Your task to perform on an android device: turn pop-ups off in chrome Image 0: 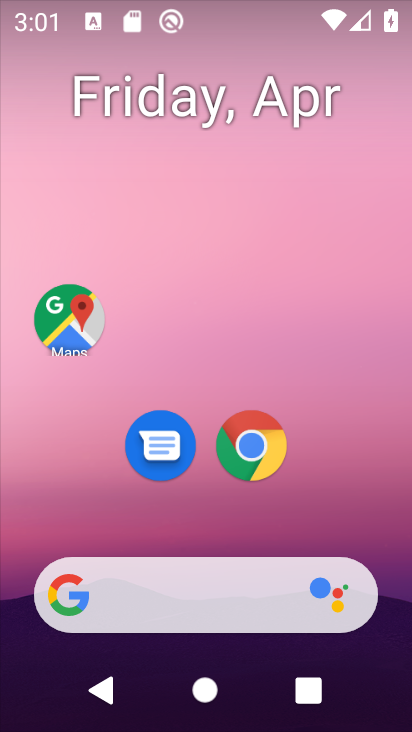
Step 0: click (319, 206)
Your task to perform on an android device: turn pop-ups off in chrome Image 1: 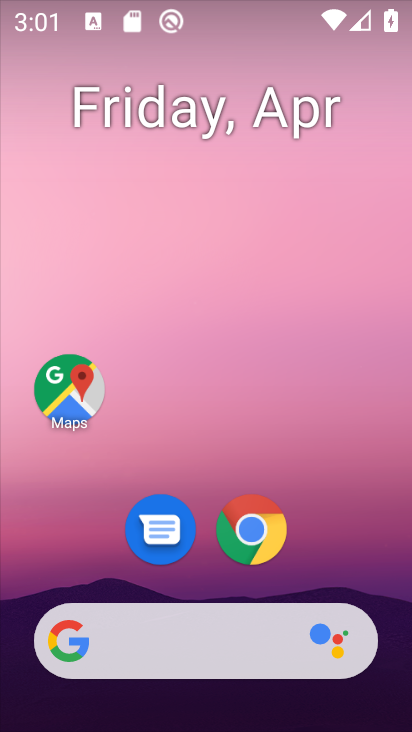
Step 1: drag from (254, 408) to (269, 21)
Your task to perform on an android device: turn pop-ups off in chrome Image 2: 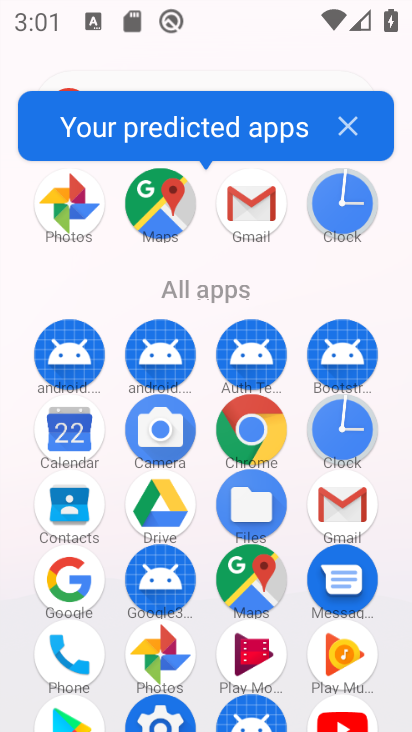
Step 2: click (255, 435)
Your task to perform on an android device: turn pop-ups off in chrome Image 3: 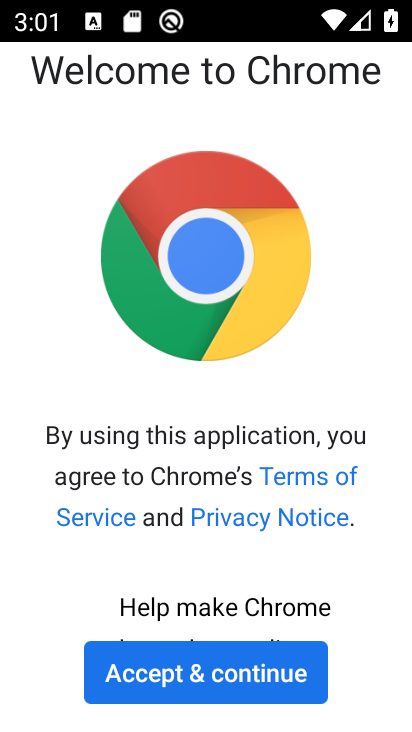
Step 3: click (292, 682)
Your task to perform on an android device: turn pop-ups off in chrome Image 4: 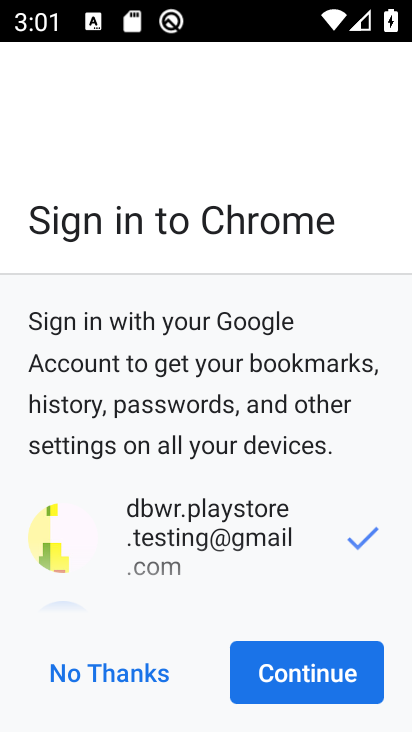
Step 4: click (326, 690)
Your task to perform on an android device: turn pop-ups off in chrome Image 5: 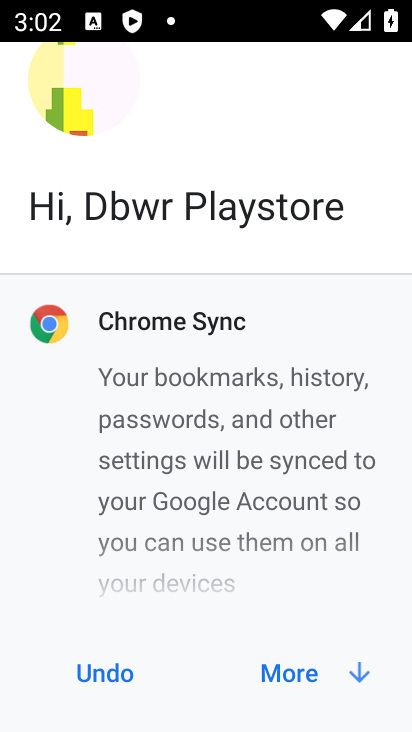
Step 5: click (330, 672)
Your task to perform on an android device: turn pop-ups off in chrome Image 6: 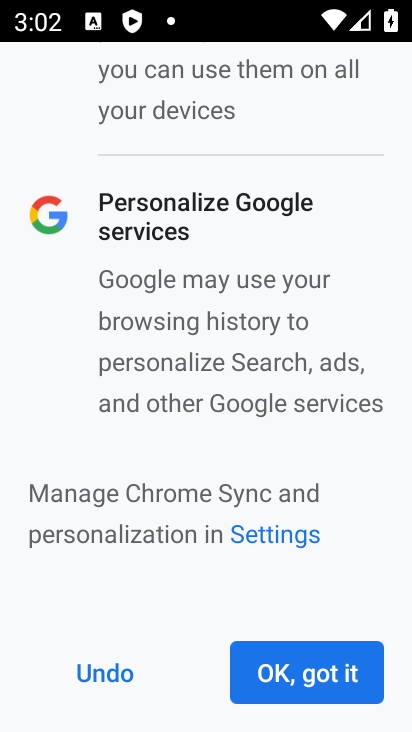
Step 6: click (339, 664)
Your task to perform on an android device: turn pop-ups off in chrome Image 7: 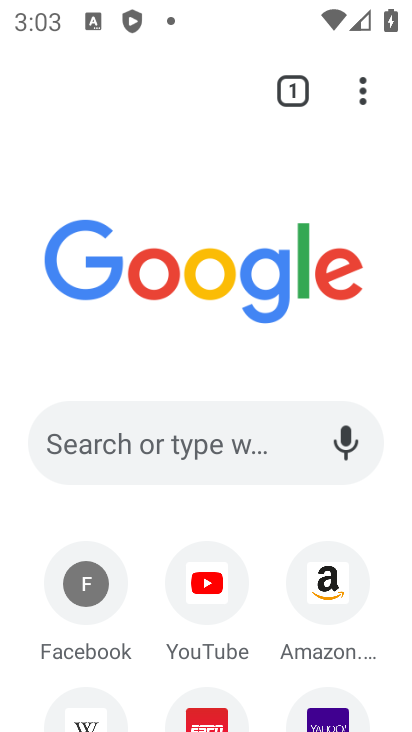
Step 7: click (349, 97)
Your task to perform on an android device: turn pop-ups off in chrome Image 8: 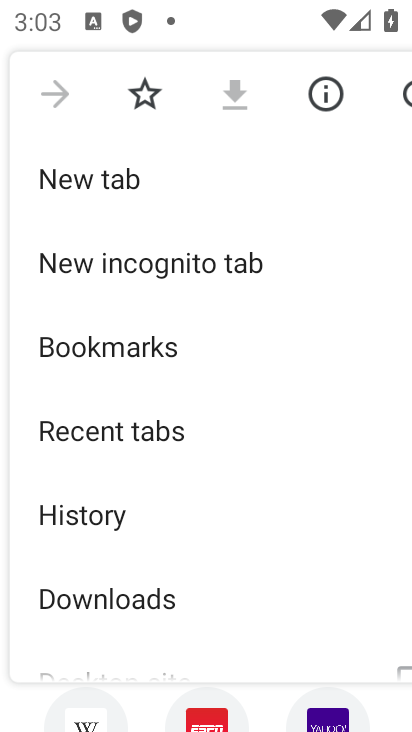
Step 8: drag from (219, 566) to (239, 222)
Your task to perform on an android device: turn pop-ups off in chrome Image 9: 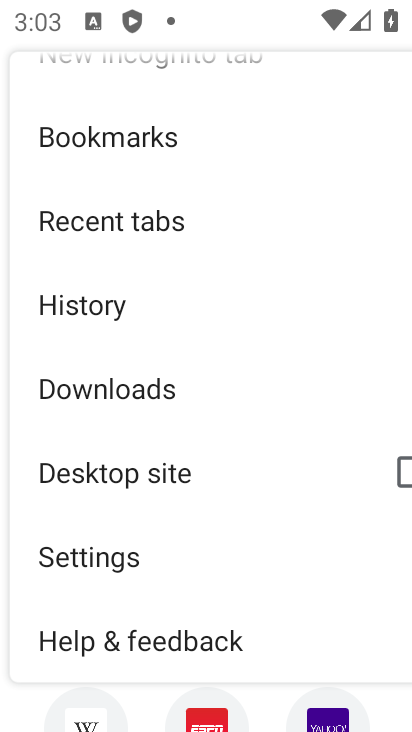
Step 9: drag from (184, 537) to (233, 152)
Your task to perform on an android device: turn pop-ups off in chrome Image 10: 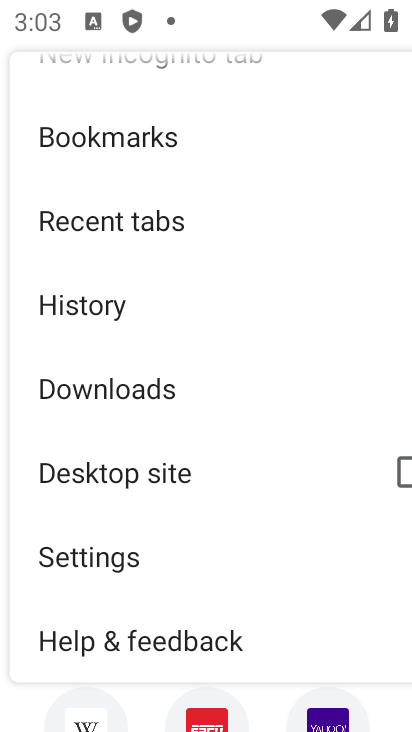
Step 10: drag from (157, 551) to (216, 187)
Your task to perform on an android device: turn pop-ups off in chrome Image 11: 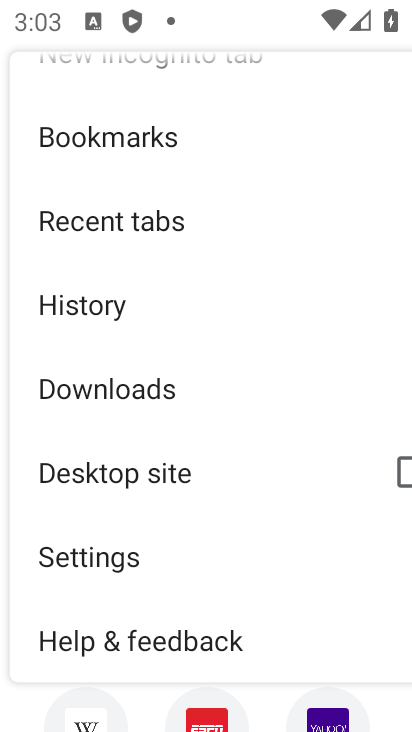
Step 11: click (160, 562)
Your task to perform on an android device: turn pop-ups off in chrome Image 12: 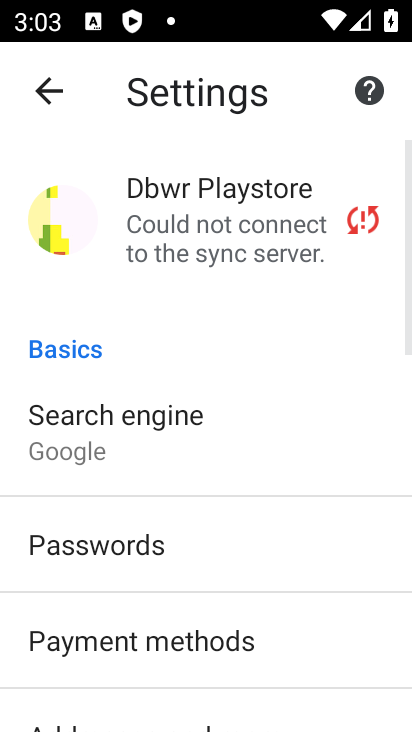
Step 12: drag from (165, 551) to (161, 208)
Your task to perform on an android device: turn pop-ups off in chrome Image 13: 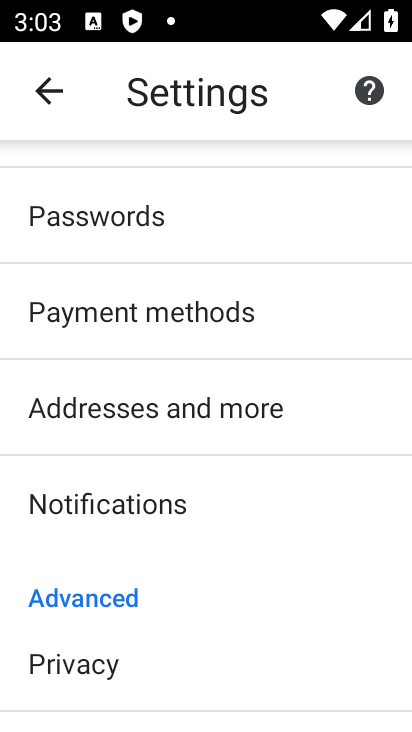
Step 13: drag from (168, 561) to (170, 364)
Your task to perform on an android device: turn pop-ups off in chrome Image 14: 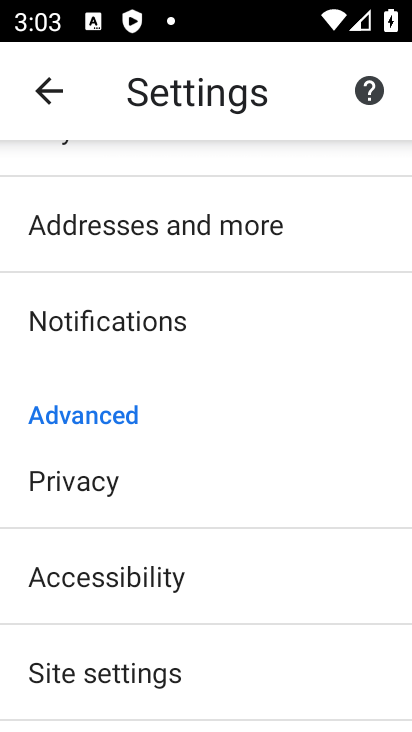
Step 14: drag from (136, 601) to (164, 323)
Your task to perform on an android device: turn pop-ups off in chrome Image 15: 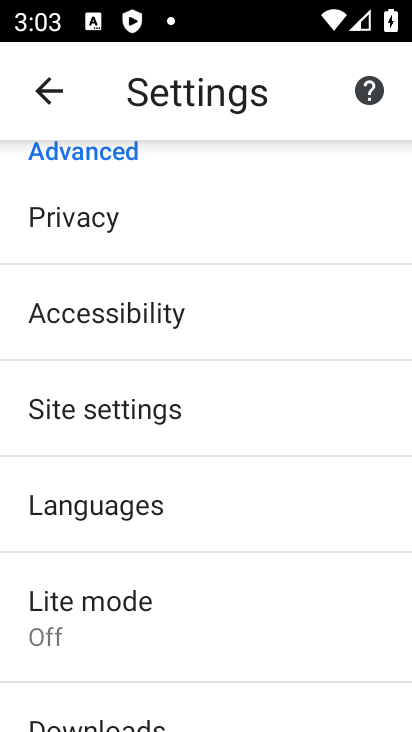
Step 15: drag from (174, 592) to (188, 403)
Your task to perform on an android device: turn pop-ups off in chrome Image 16: 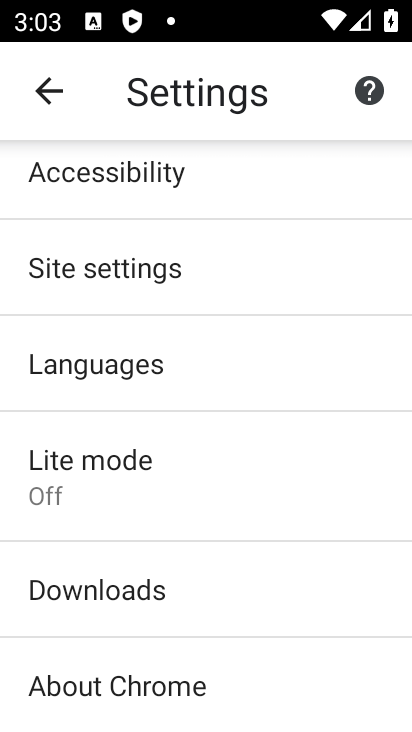
Step 16: click (161, 294)
Your task to perform on an android device: turn pop-ups off in chrome Image 17: 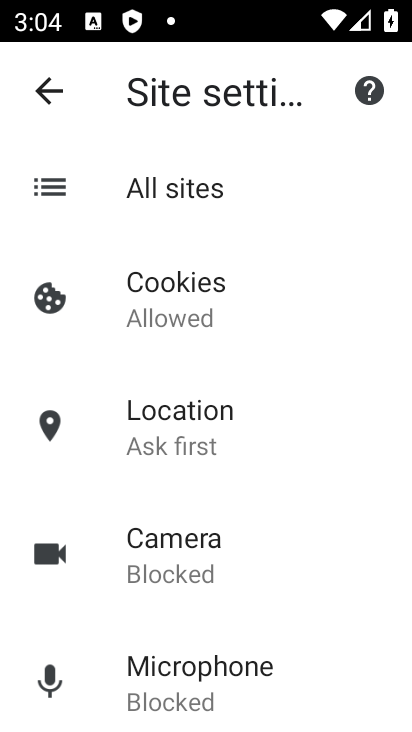
Step 17: drag from (197, 508) to (262, 132)
Your task to perform on an android device: turn pop-ups off in chrome Image 18: 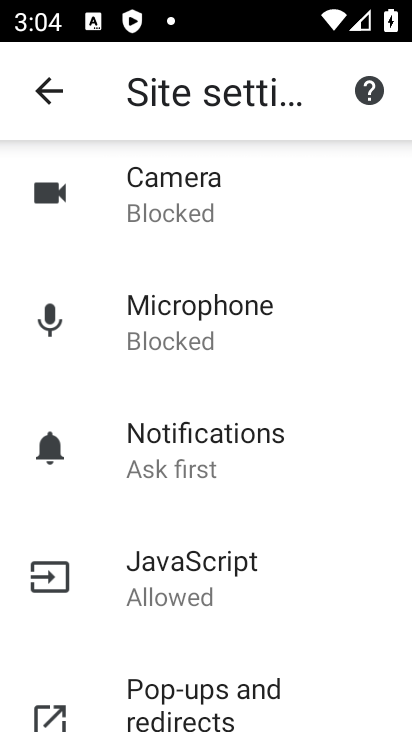
Step 18: drag from (204, 584) to (227, 242)
Your task to perform on an android device: turn pop-ups off in chrome Image 19: 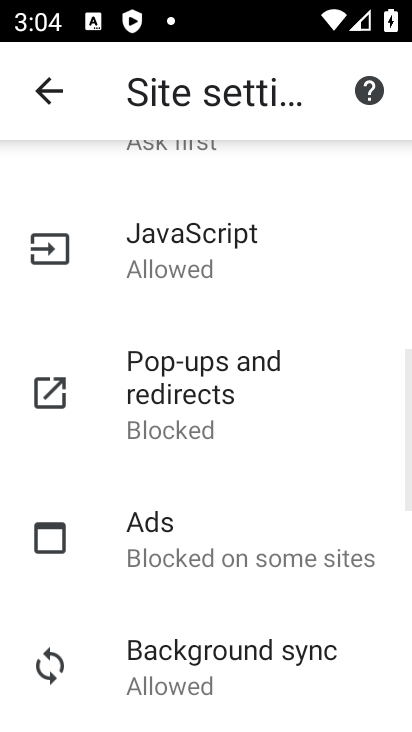
Step 19: click (235, 405)
Your task to perform on an android device: turn pop-ups off in chrome Image 20: 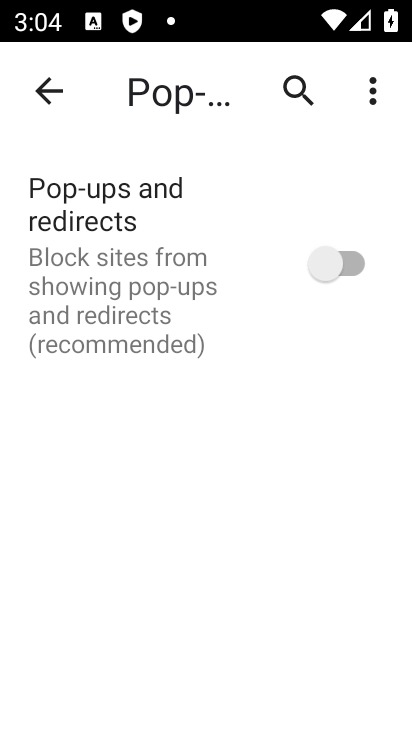
Step 20: task complete